Your task to perform on an android device: set default search engine in the chrome app Image 0: 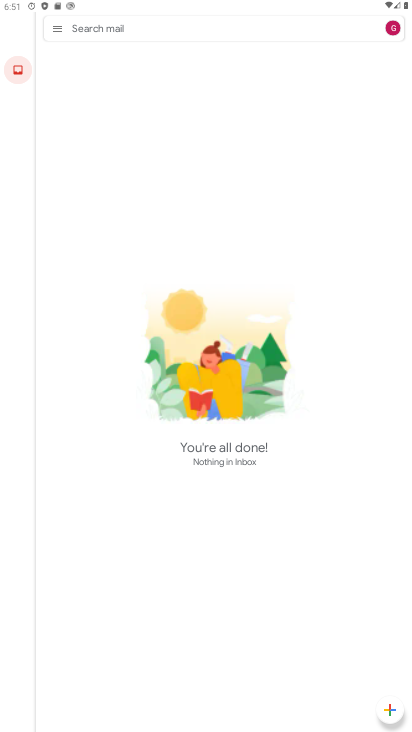
Step 0: press home button
Your task to perform on an android device: set default search engine in the chrome app Image 1: 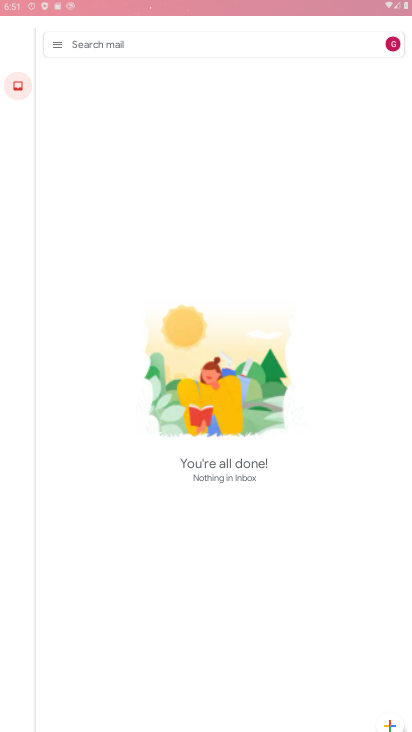
Step 1: drag from (389, 679) to (231, 2)
Your task to perform on an android device: set default search engine in the chrome app Image 2: 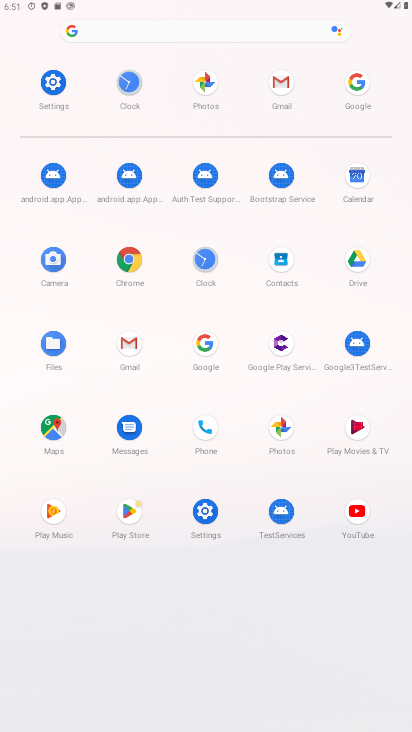
Step 2: click (122, 256)
Your task to perform on an android device: set default search engine in the chrome app Image 3: 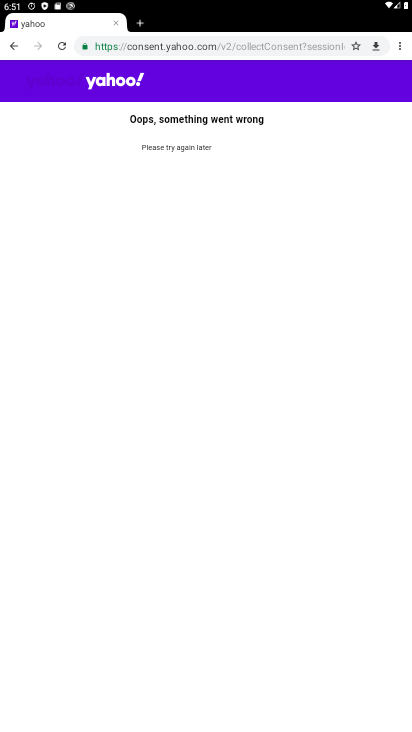
Step 3: press back button
Your task to perform on an android device: set default search engine in the chrome app Image 4: 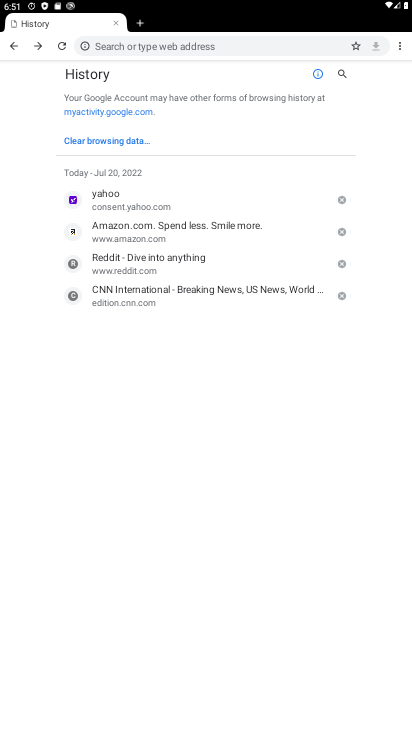
Step 4: click (398, 44)
Your task to perform on an android device: set default search engine in the chrome app Image 5: 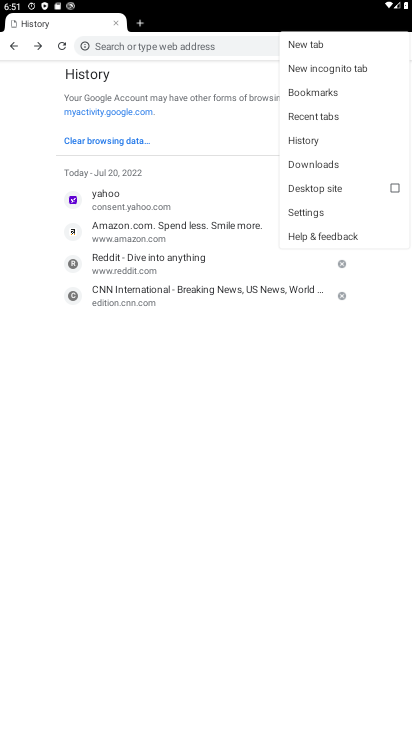
Step 5: click (303, 208)
Your task to perform on an android device: set default search engine in the chrome app Image 6: 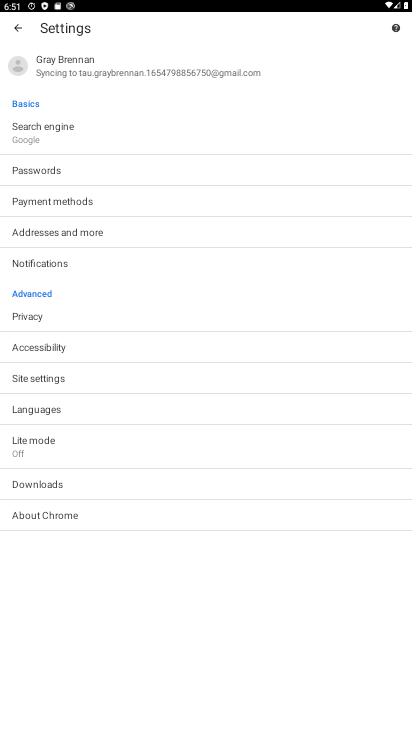
Step 6: click (26, 139)
Your task to perform on an android device: set default search engine in the chrome app Image 7: 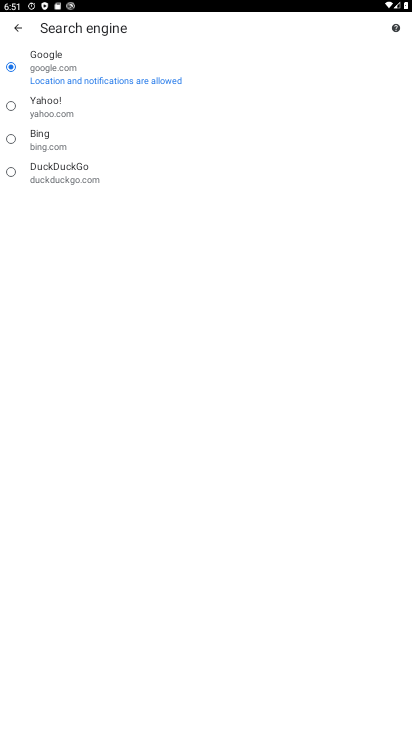
Step 7: click (51, 145)
Your task to perform on an android device: set default search engine in the chrome app Image 8: 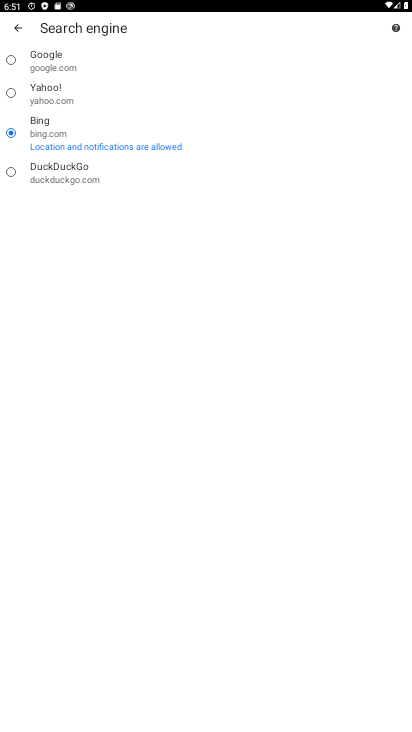
Step 8: task complete